Your task to perform on an android device: Open ESPN.com Image 0: 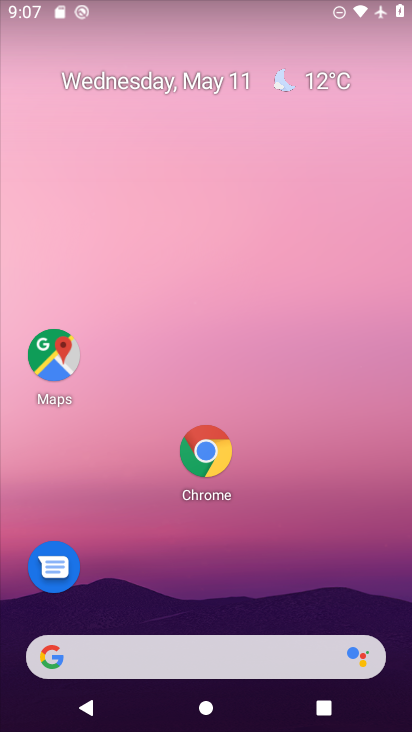
Step 0: click (205, 456)
Your task to perform on an android device: Open ESPN.com Image 1: 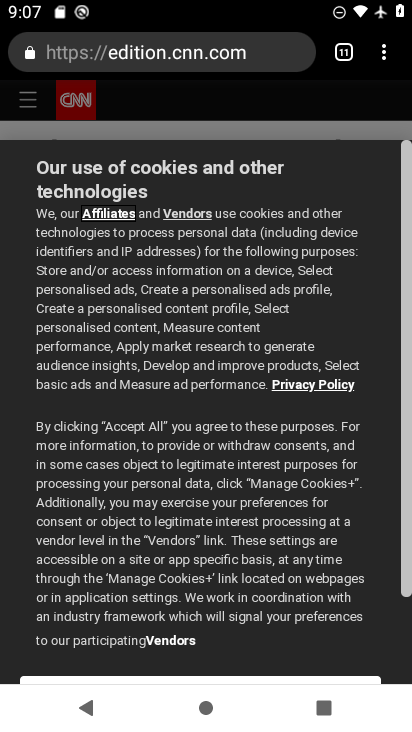
Step 1: drag from (381, 58) to (270, 103)
Your task to perform on an android device: Open ESPN.com Image 2: 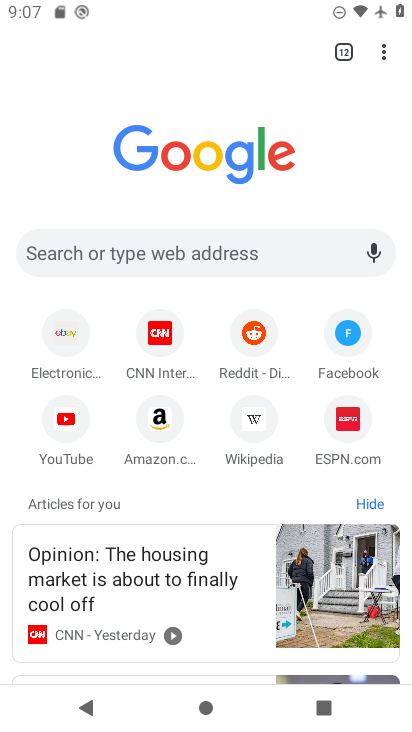
Step 2: click (343, 420)
Your task to perform on an android device: Open ESPN.com Image 3: 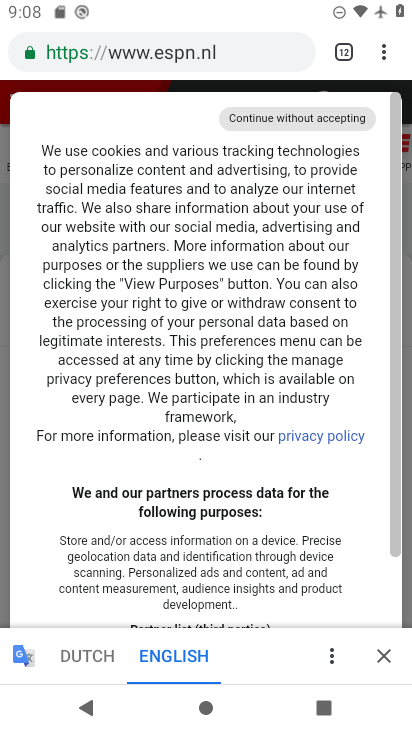
Step 3: task complete